Your task to perform on an android device: turn on showing notifications on the lock screen Image 0: 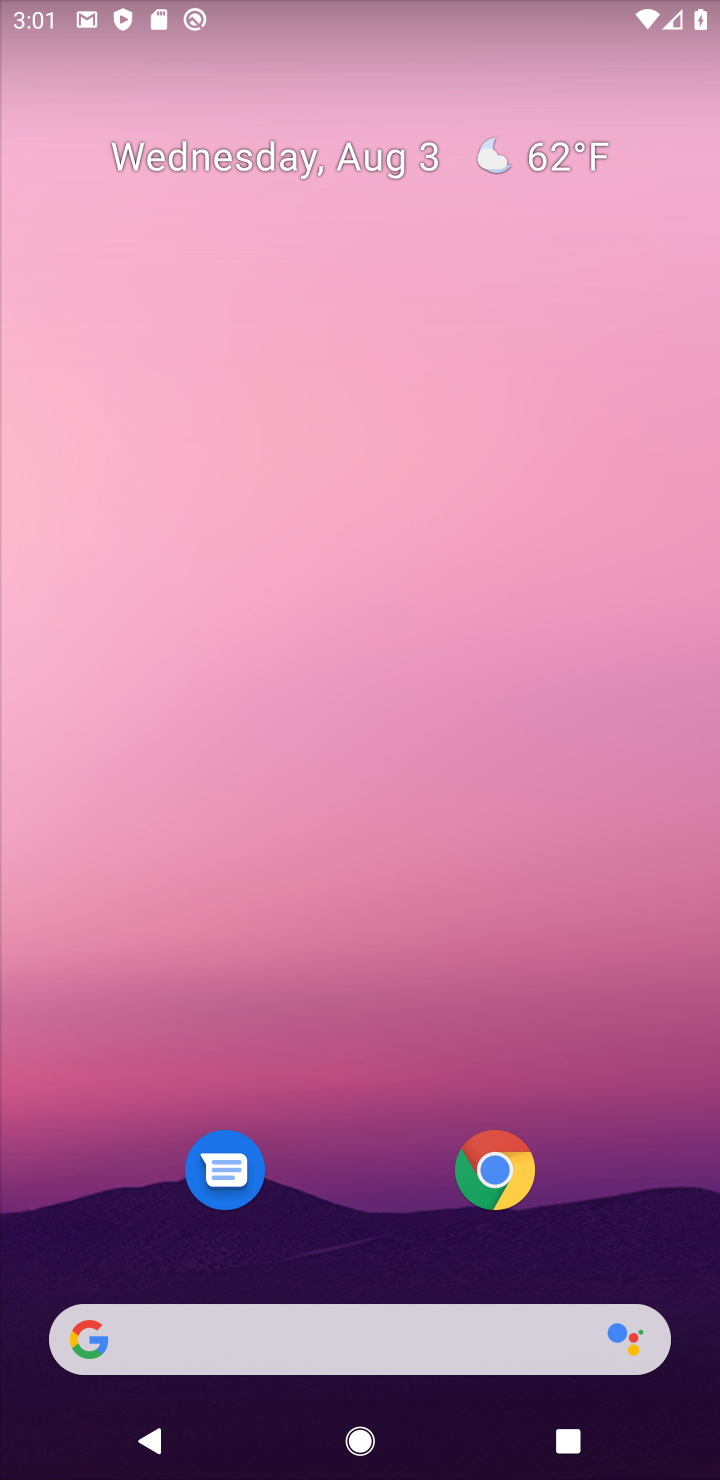
Step 0: drag from (347, 1223) to (56, 542)
Your task to perform on an android device: turn on showing notifications on the lock screen Image 1: 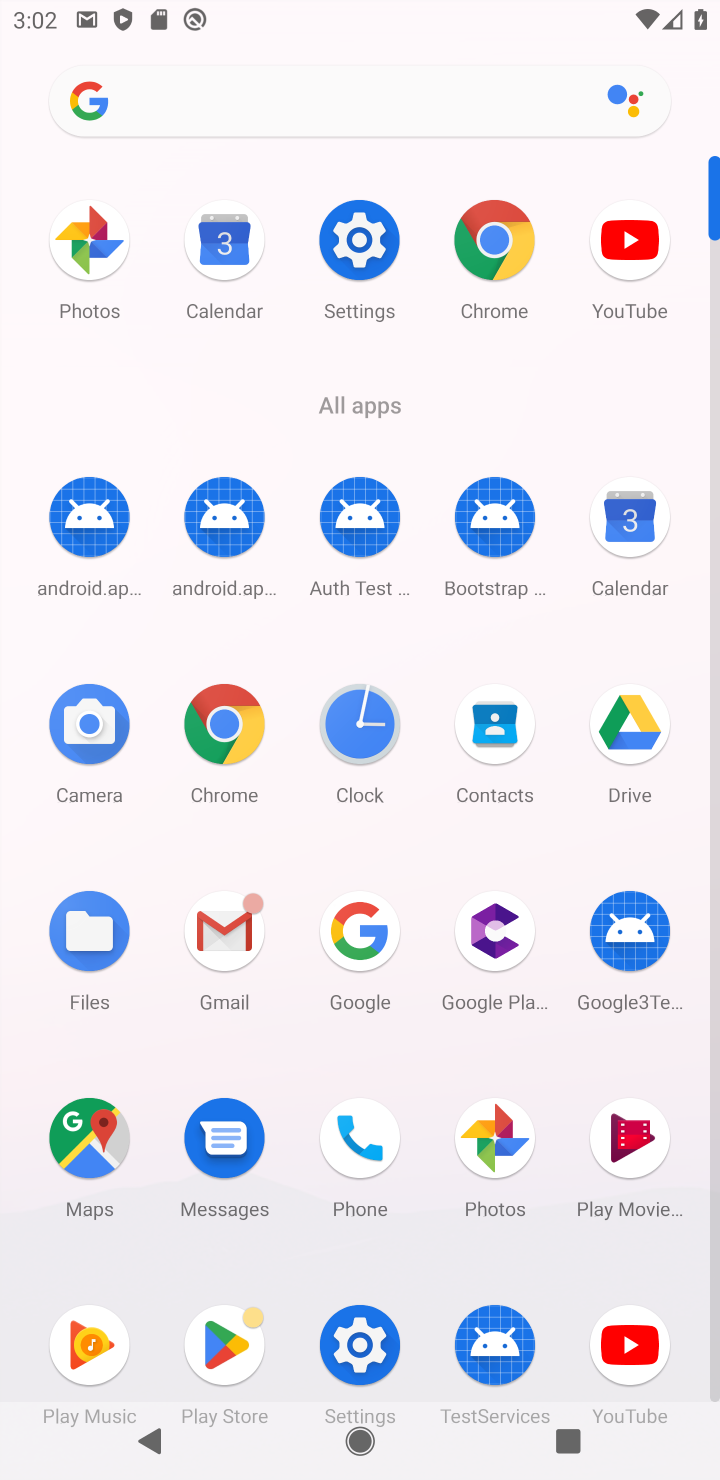
Step 1: click (365, 293)
Your task to perform on an android device: turn on showing notifications on the lock screen Image 2: 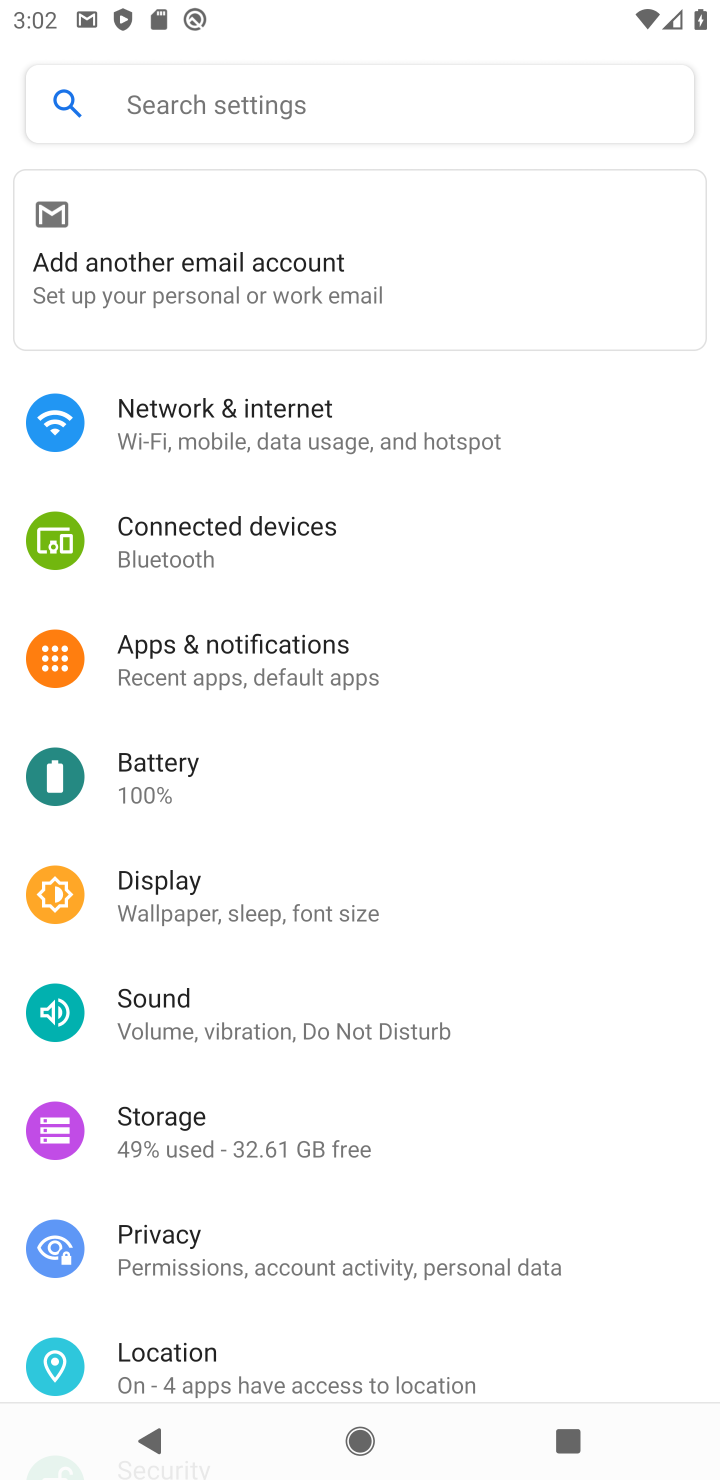
Step 2: click (405, 676)
Your task to perform on an android device: turn on showing notifications on the lock screen Image 3: 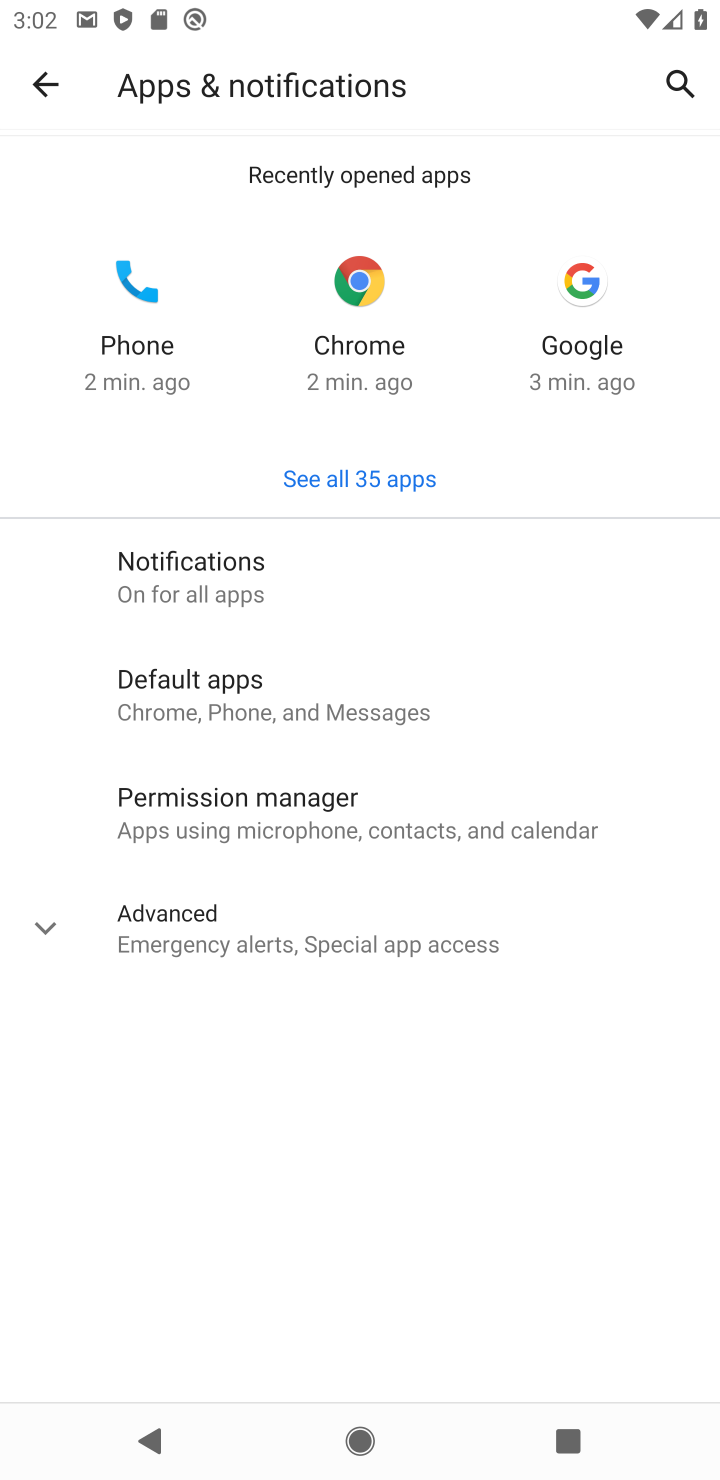
Step 3: click (221, 926)
Your task to perform on an android device: turn on showing notifications on the lock screen Image 4: 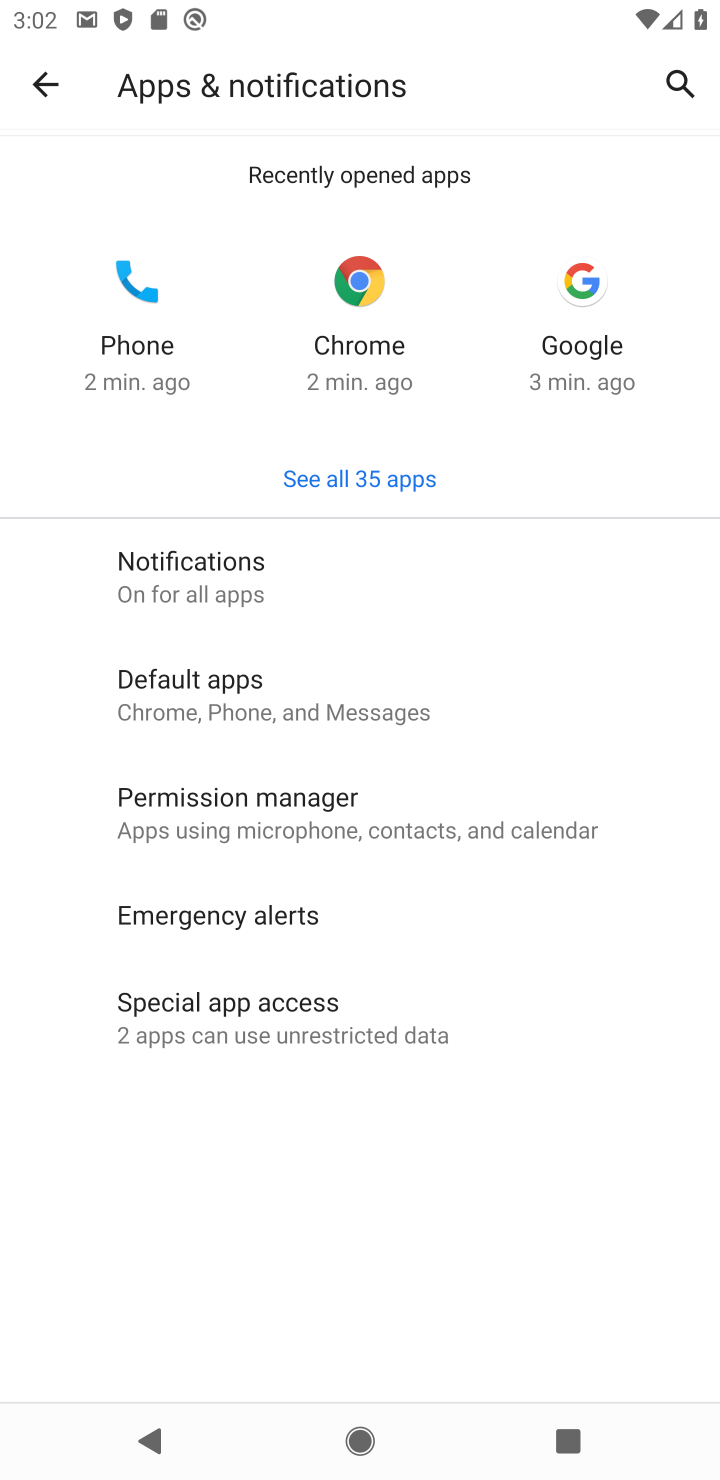
Step 4: click (191, 583)
Your task to perform on an android device: turn on showing notifications on the lock screen Image 5: 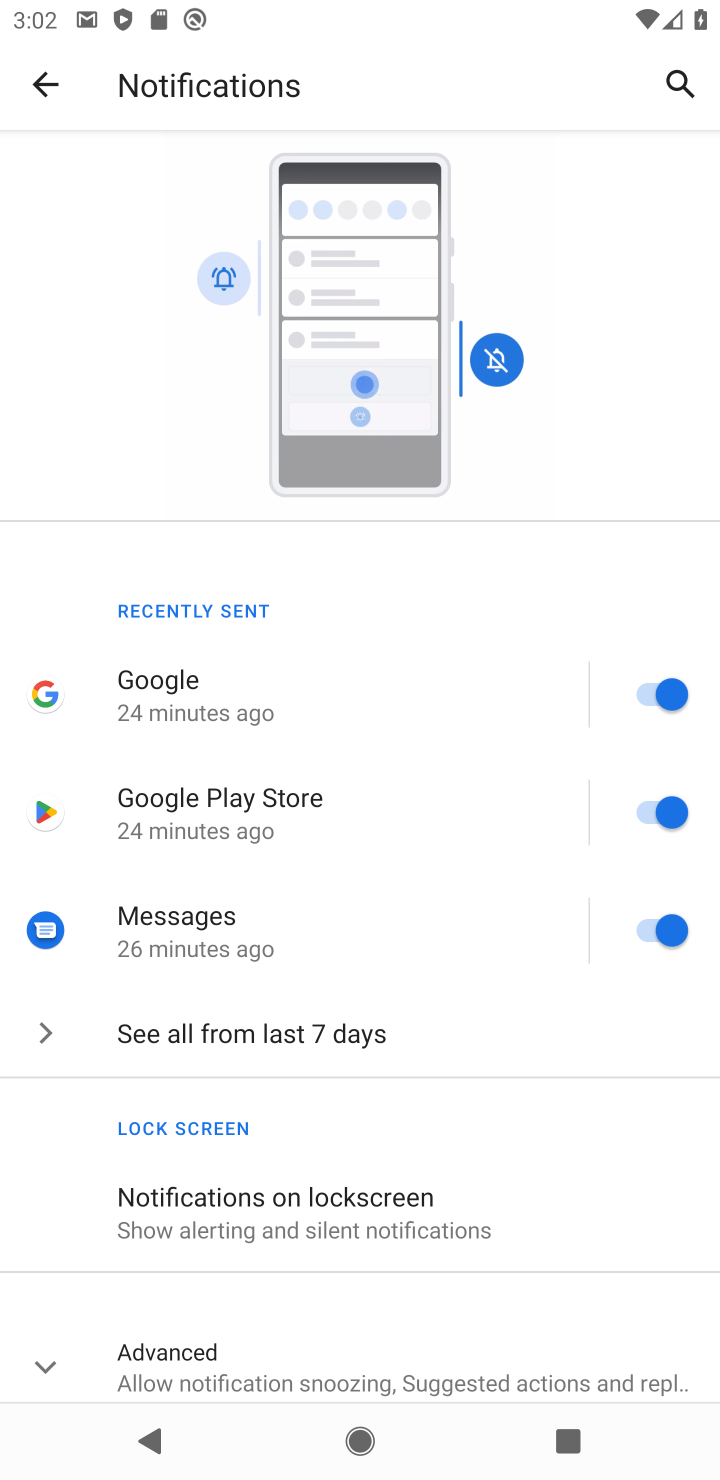
Step 5: click (272, 1205)
Your task to perform on an android device: turn on showing notifications on the lock screen Image 6: 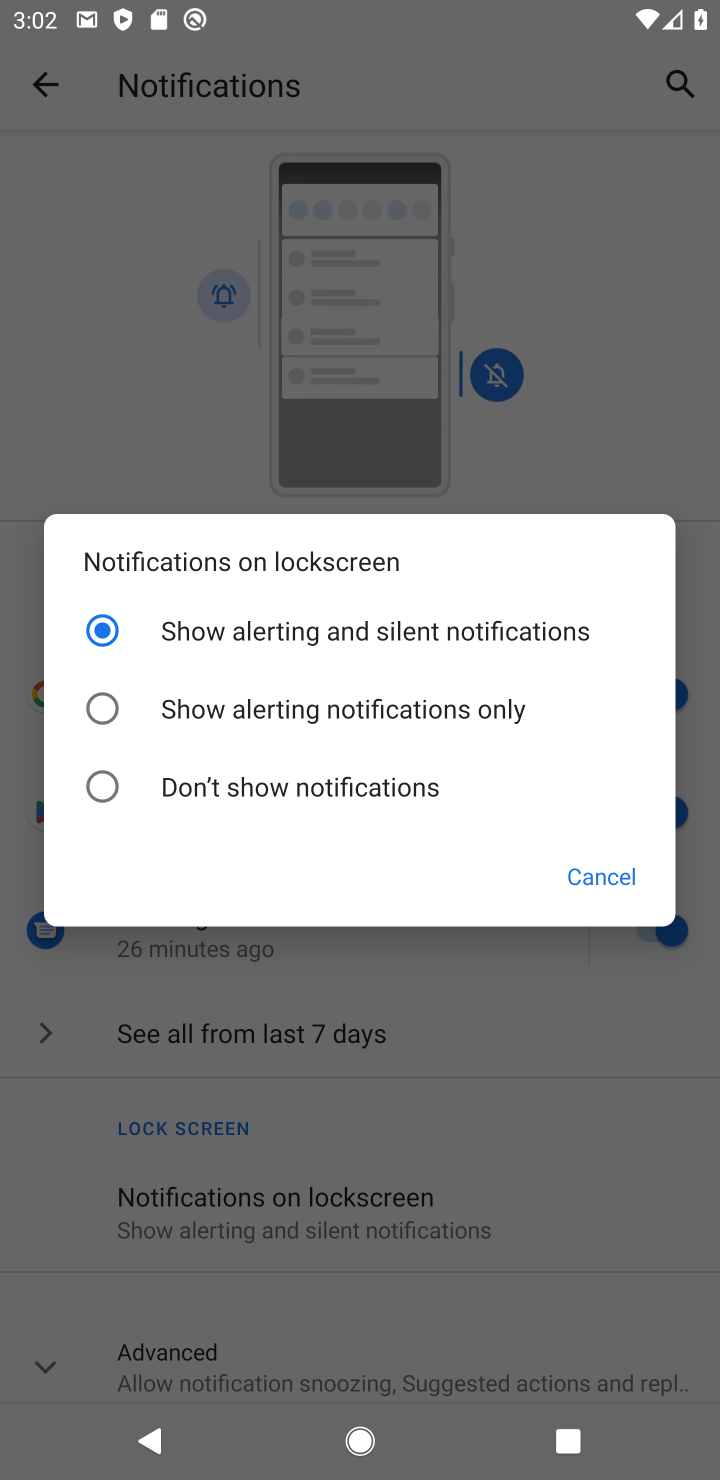
Step 6: click (600, 866)
Your task to perform on an android device: turn on showing notifications on the lock screen Image 7: 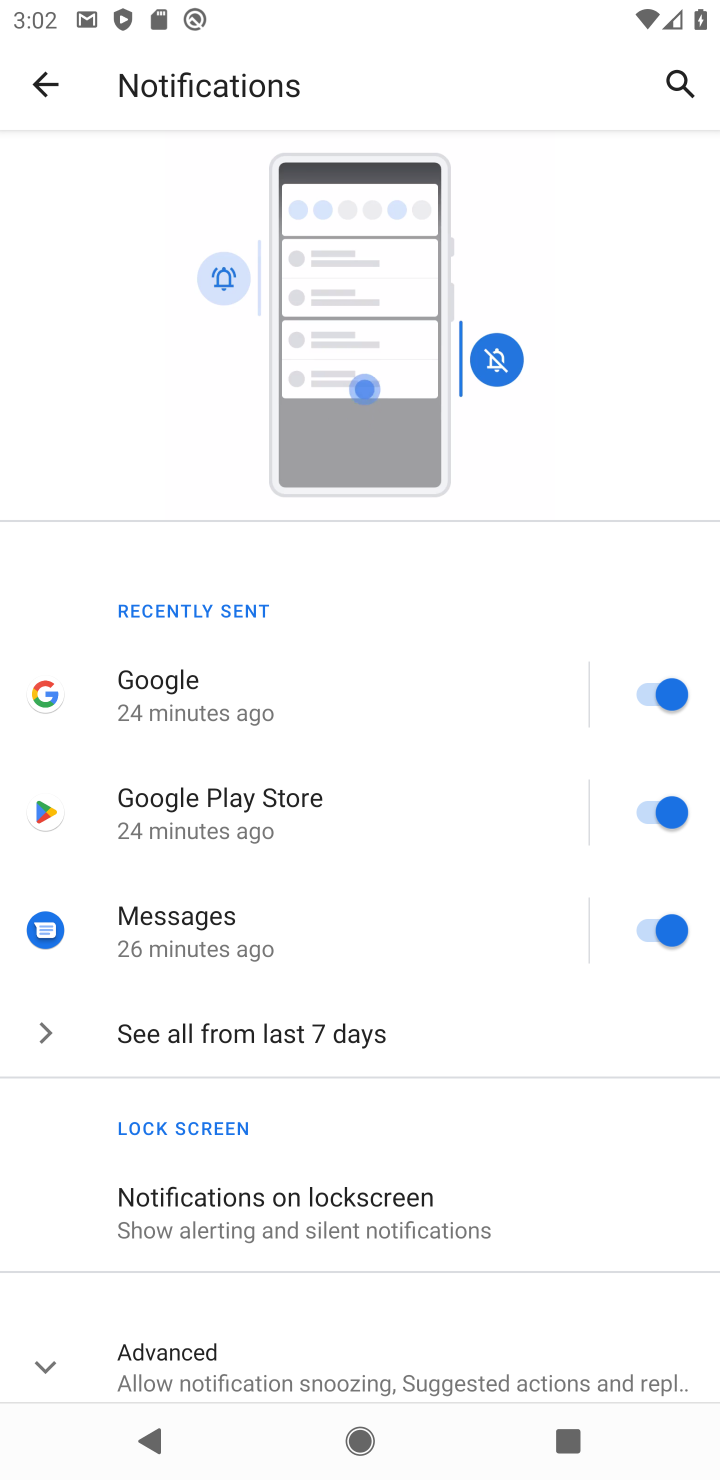
Step 7: task complete